Your task to perform on an android device: See recent photos Image 0: 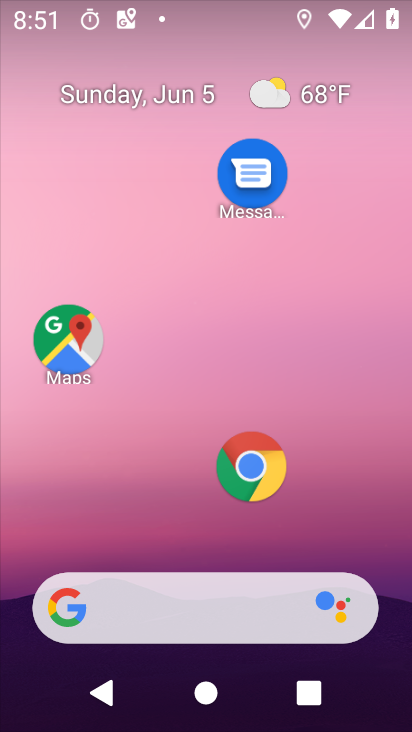
Step 0: drag from (204, 526) to (197, 195)
Your task to perform on an android device: See recent photos Image 1: 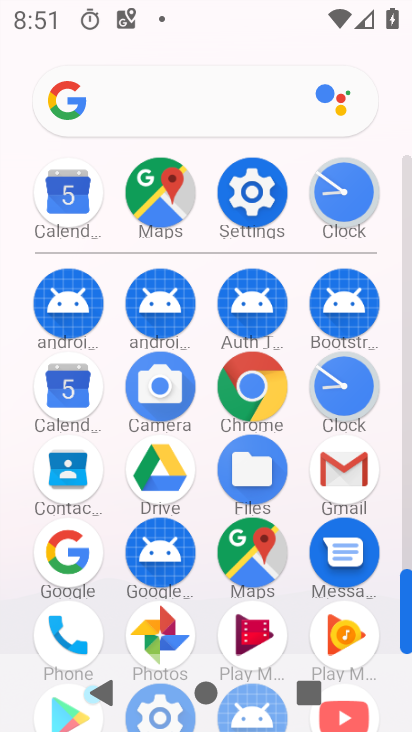
Step 1: click (143, 625)
Your task to perform on an android device: See recent photos Image 2: 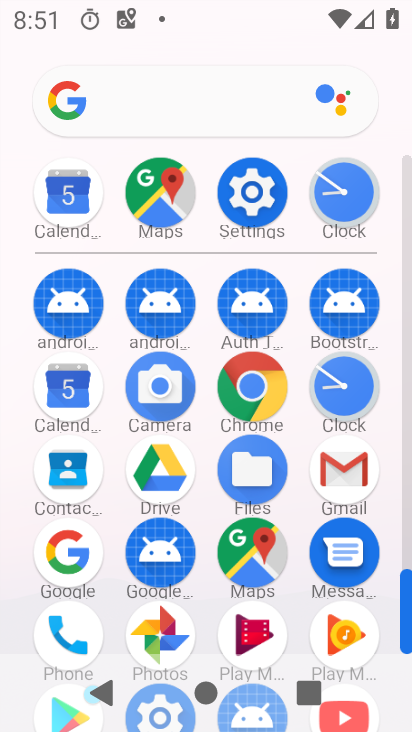
Step 2: click (143, 625)
Your task to perform on an android device: See recent photos Image 3: 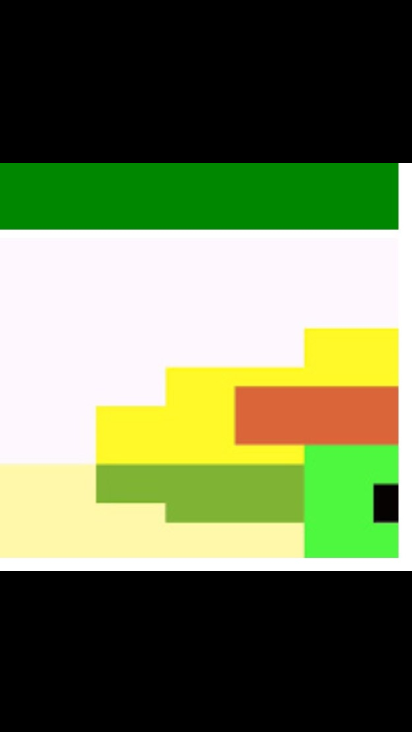
Step 3: task complete